Your task to perform on an android device: Open settings on Google Maps Image 0: 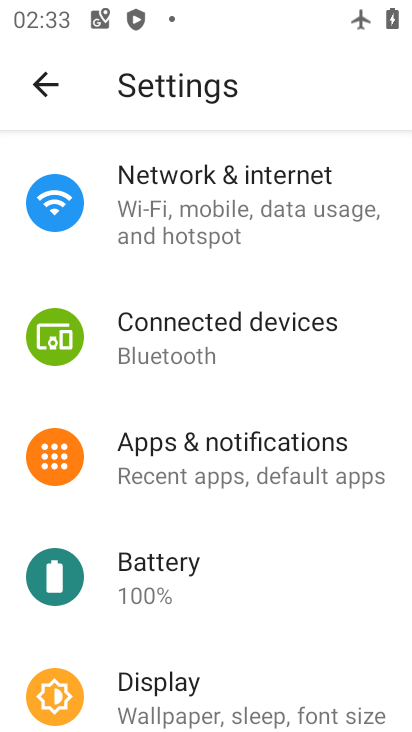
Step 0: press home button
Your task to perform on an android device: Open settings on Google Maps Image 1: 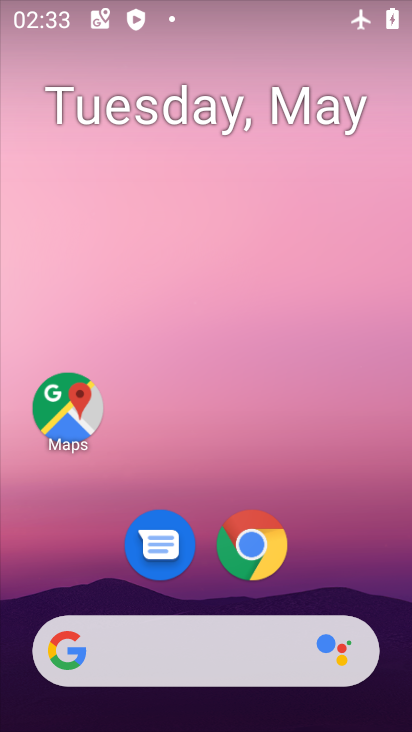
Step 1: click (67, 407)
Your task to perform on an android device: Open settings on Google Maps Image 2: 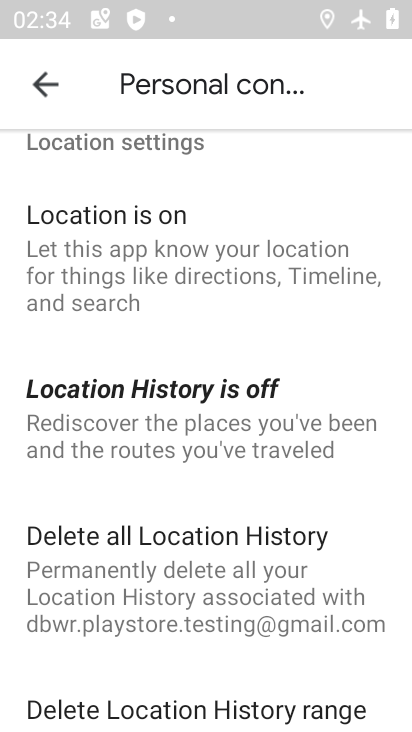
Step 2: task complete